Your task to perform on an android device: toggle priority inbox in the gmail app Image 0: 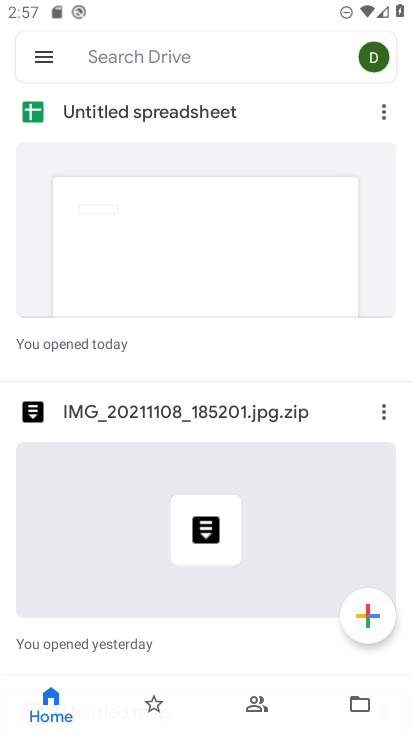
Step 0: press home button
Your task to perform on an android device: toggle priority inbox in the gmail app Image 1: 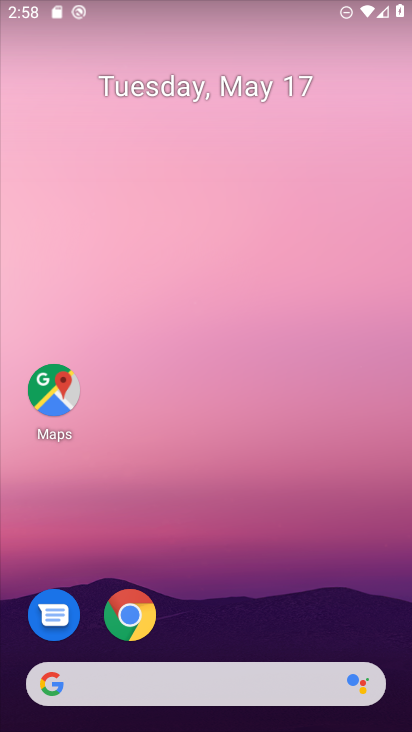
Step 1: drag from (233, 725) to (233, 189)
Your task to perform on an android device: toggle priority inbox in the gmail app Image 2: 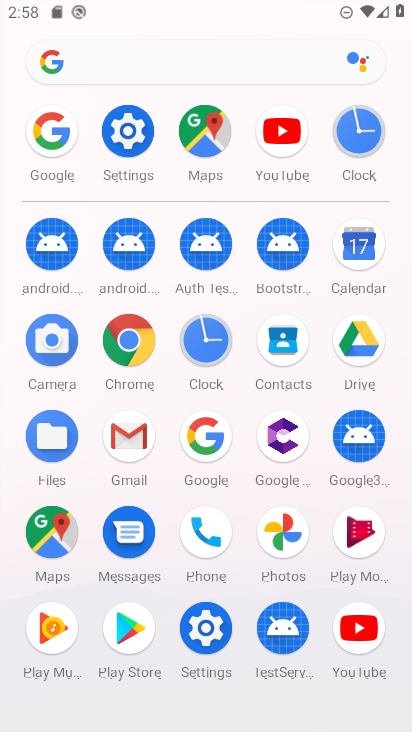
Step 2: click (128, 441)
Your task to perform on an android device: toggle priority inbox in the gmail app Image 3: 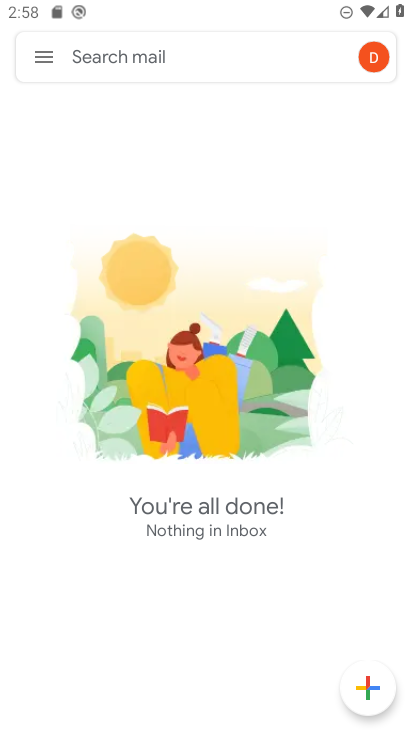
Step 3: click (42, 43)
Your task to perform on an android device: toggle priority inbox in the gmail app Image 4: 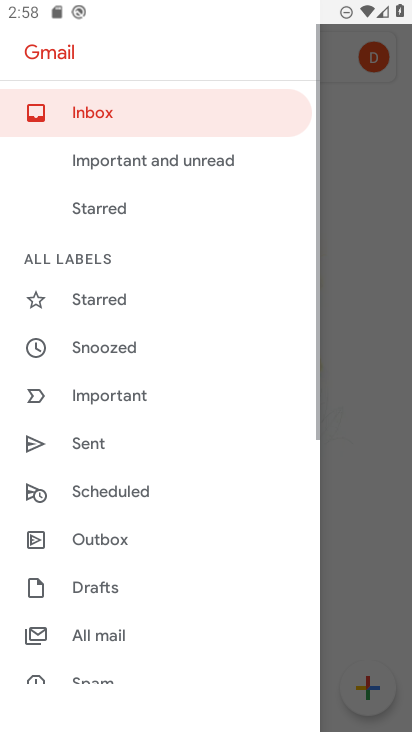
Step 4: drag from (104, 634) to (114, 314)
Your task to perform on an android device: toggle priority inbox in the gmail app Image 5: 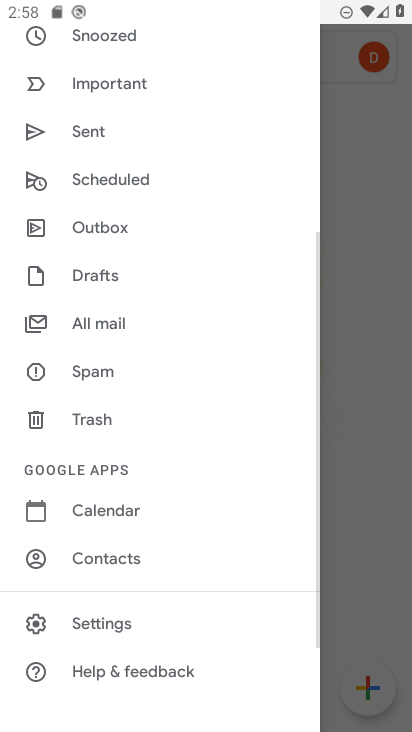
Step 5: drag from (101, 651) to (105, 320)
Your task to perform on an android device: toggle priority inbox in the gmail app Image 6: 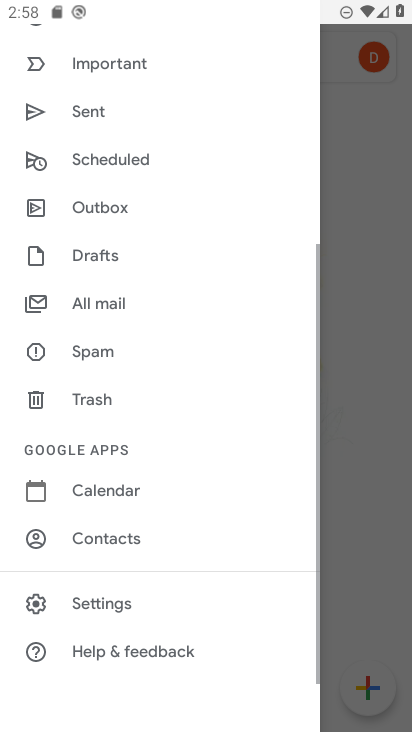
Step 6: click (80, 603)
Your task to perform on an android device: toggle priority inbox in the gmail app Image 7: 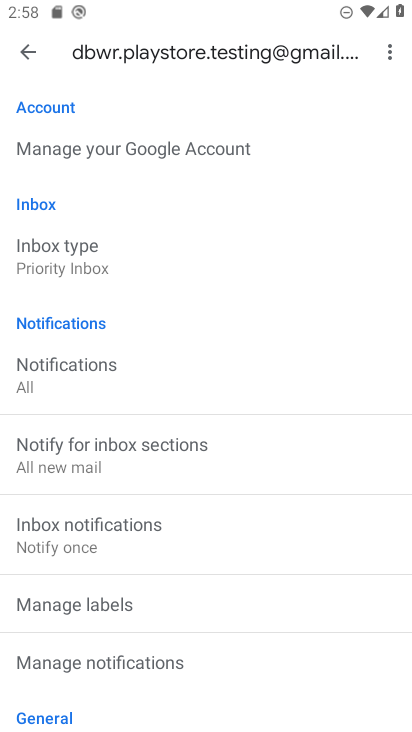
Step 7: click (64, 258)
Your task to perform on an android device: toggle priority inbox in the gmail app Image 8: 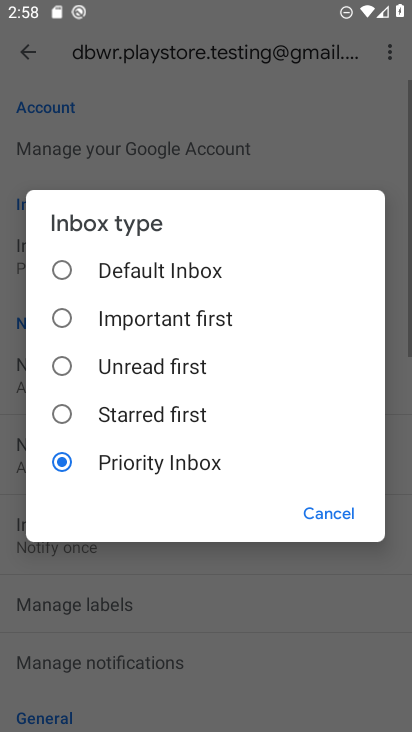
Step 8: click (62, 269)
Your task to perform on an android device: toggle priority inbox in the gmail app Image 9: 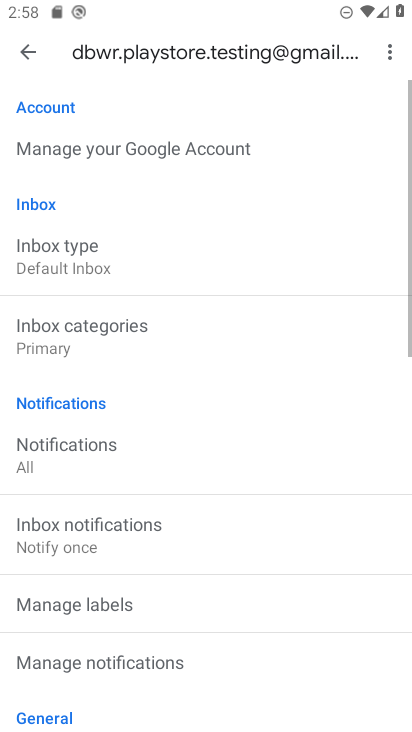
Step 9: task complete